Your task to perform on an android device: turn off wifi Image 0: 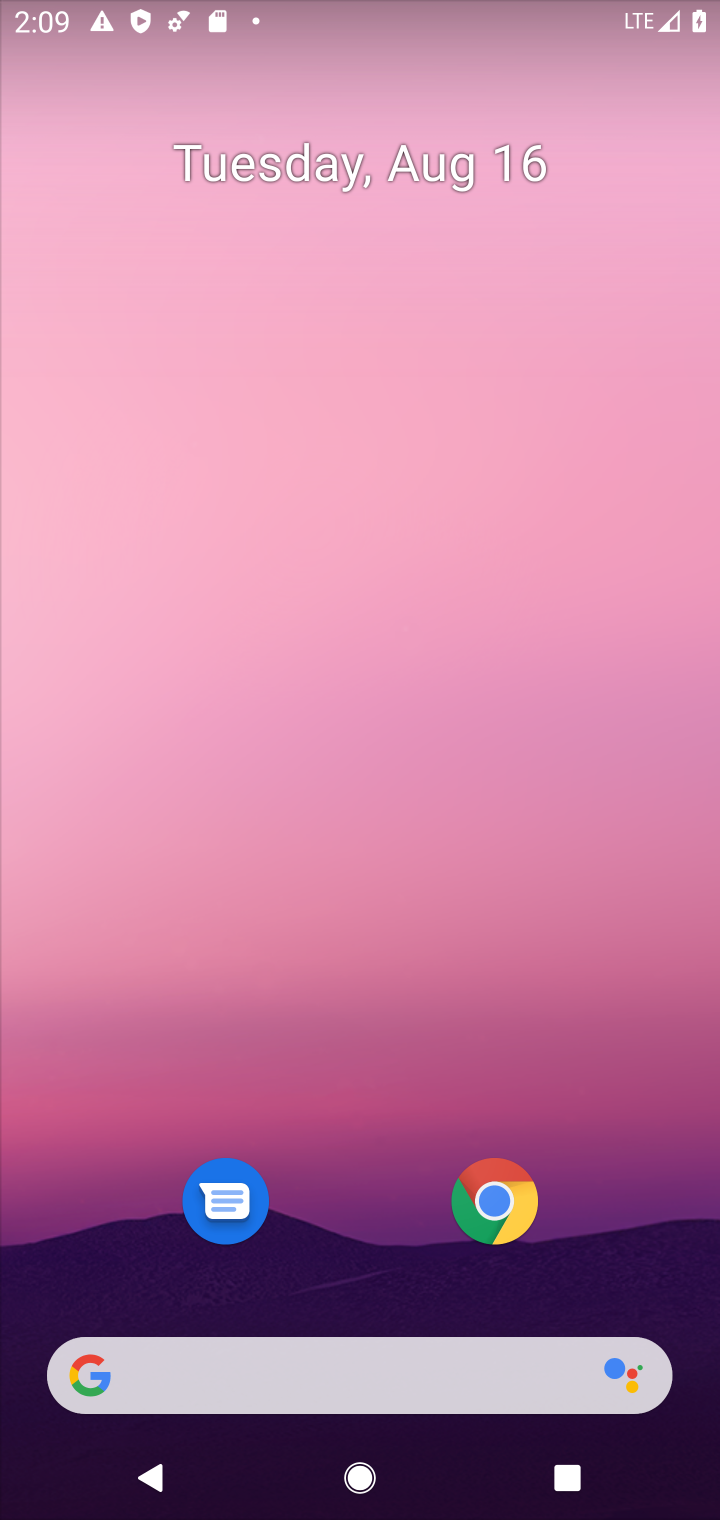
Step 0: press home button
Your task to perform on an android device: turn off wifi Image 1: 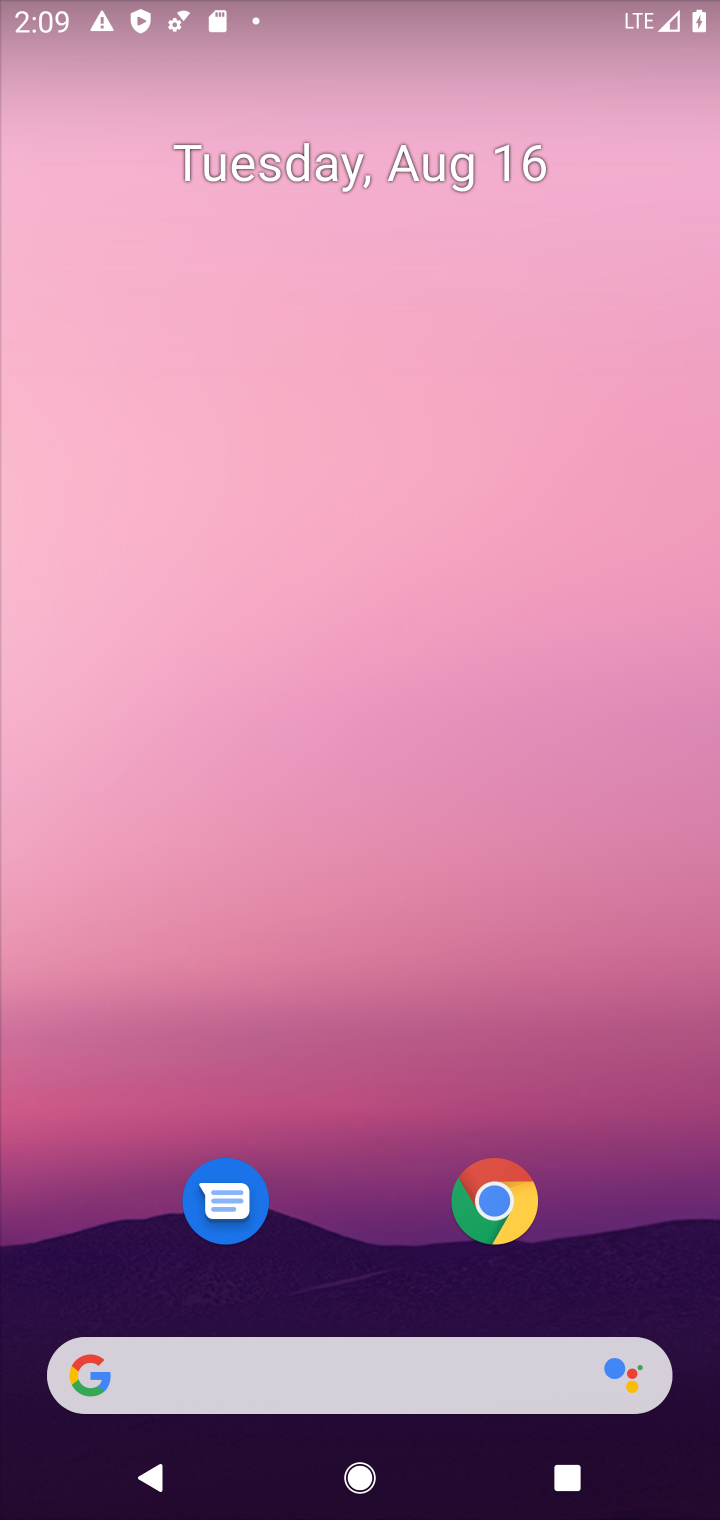
Step 1: drag from (291, 797) to (365, 365)
Your task to perform on an android device: turn off wifi Image 2: 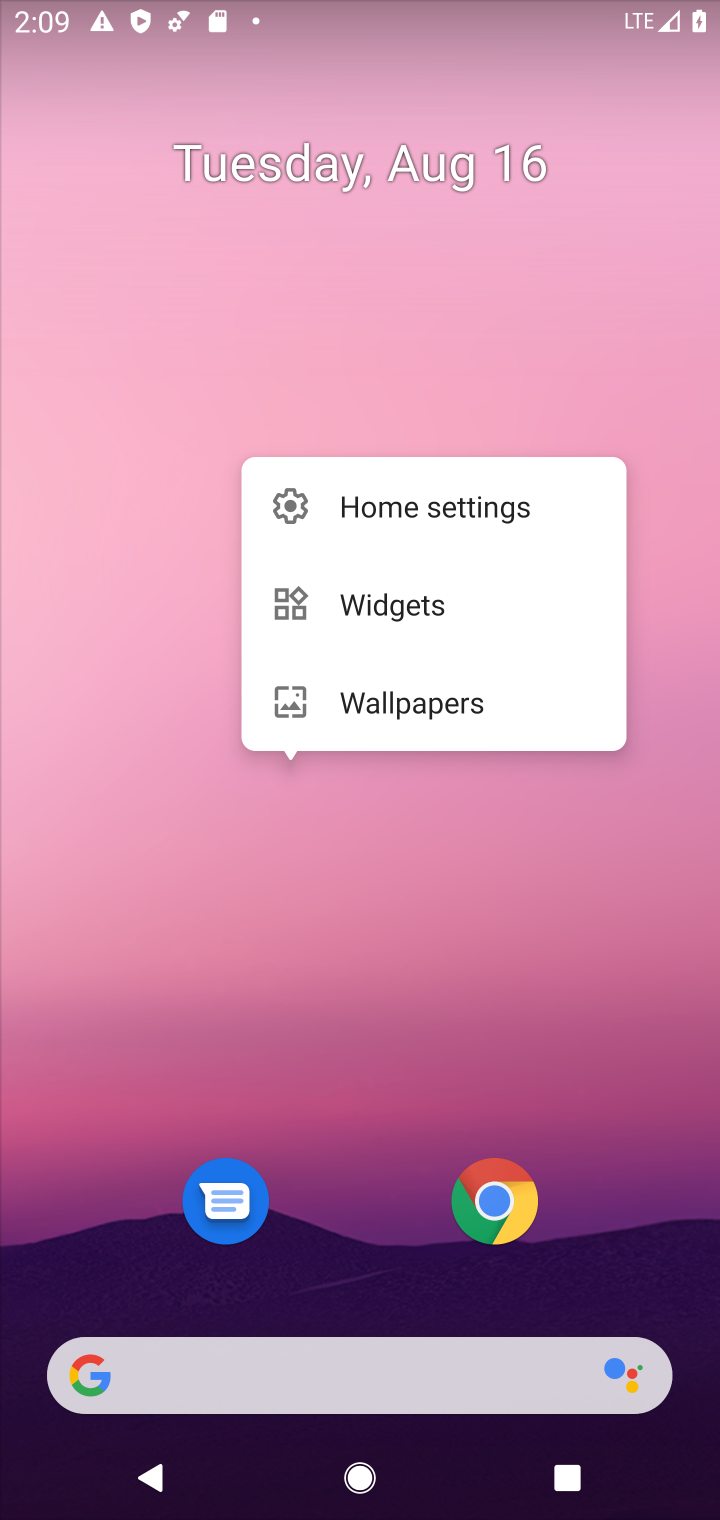
Step 2: drag from (328, 874) to (307, 158)
Your task to perform on an android device: turn off wifi Image 3: 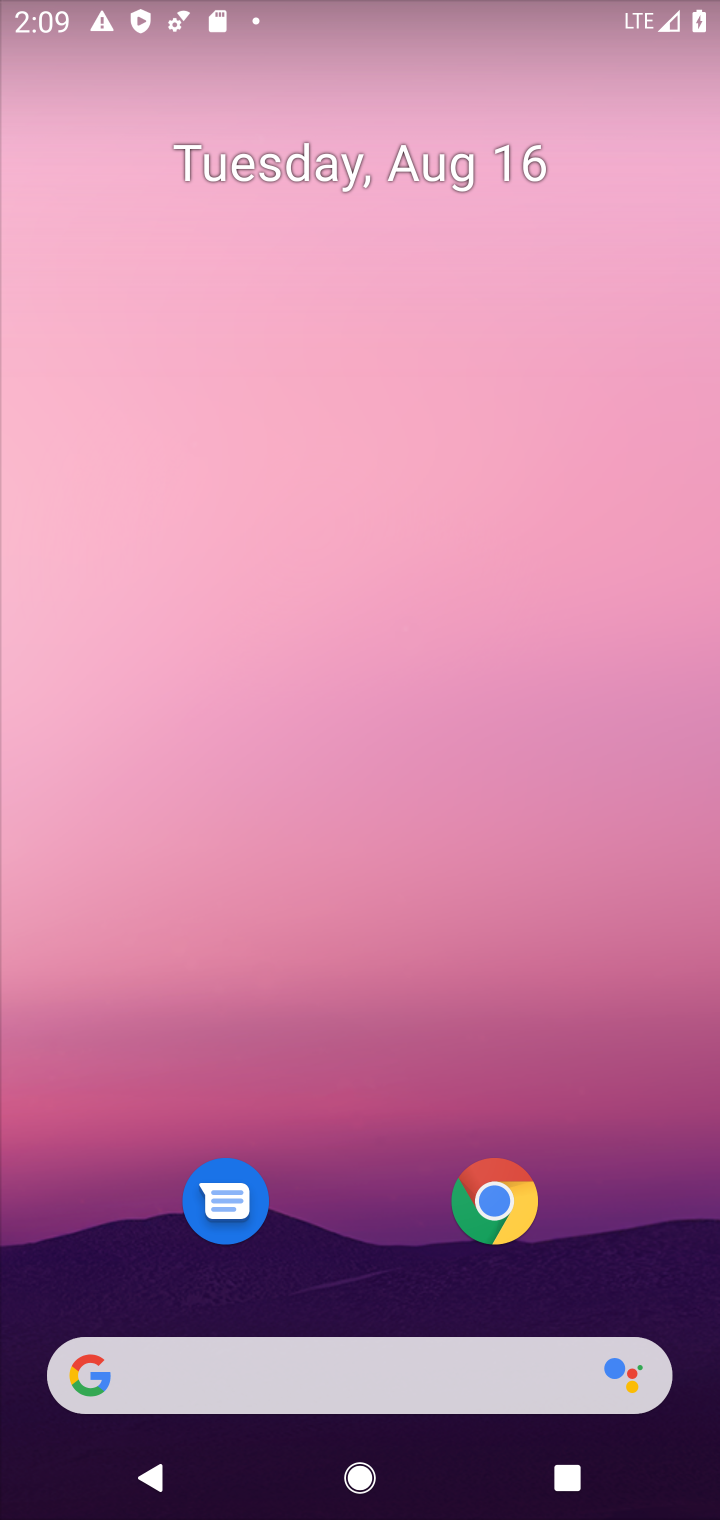
Step 3: drag from (398, 1104) to (456, 282)
Your task to perform on an android device: turn off wifi Image 4: 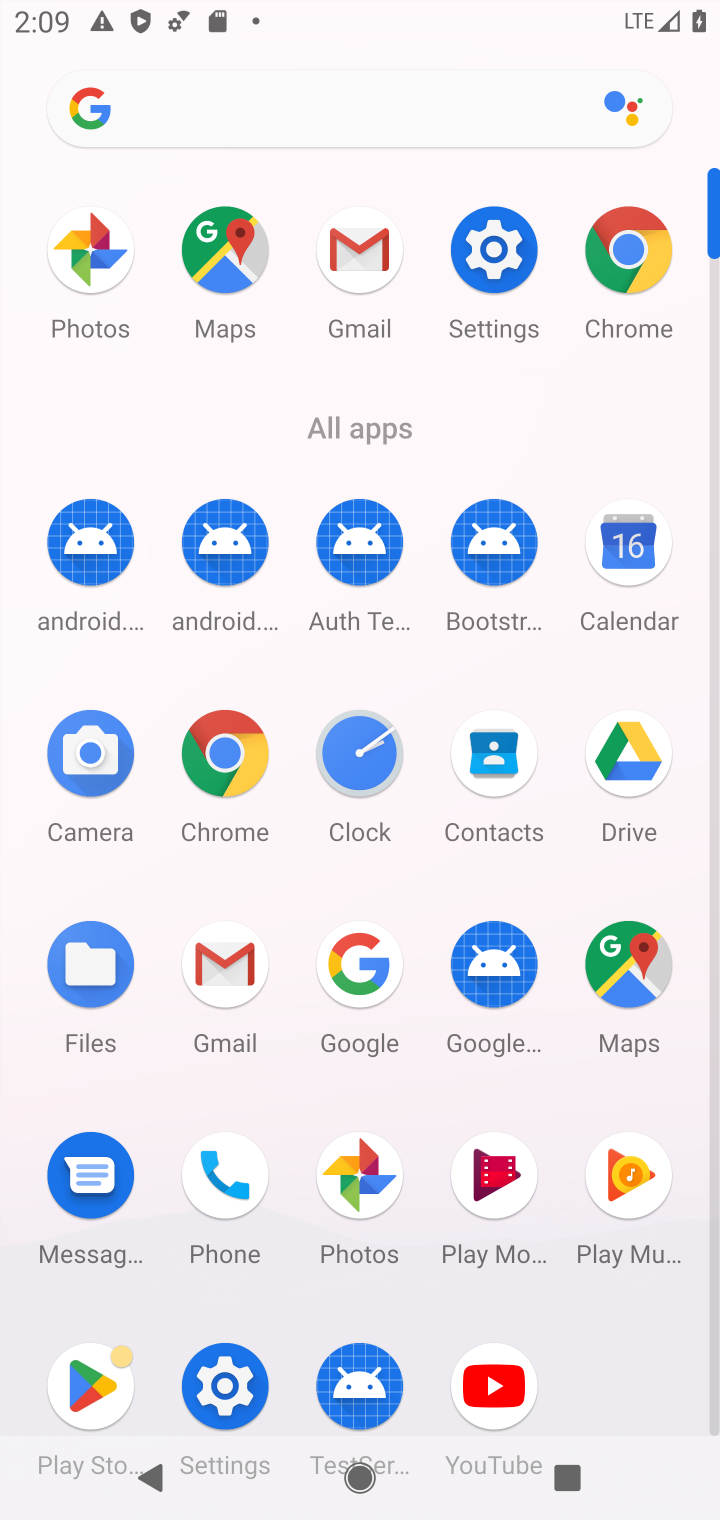
Step 4: click (483, 264)
Your task to perform on an android device: turn off wifi Image 5: 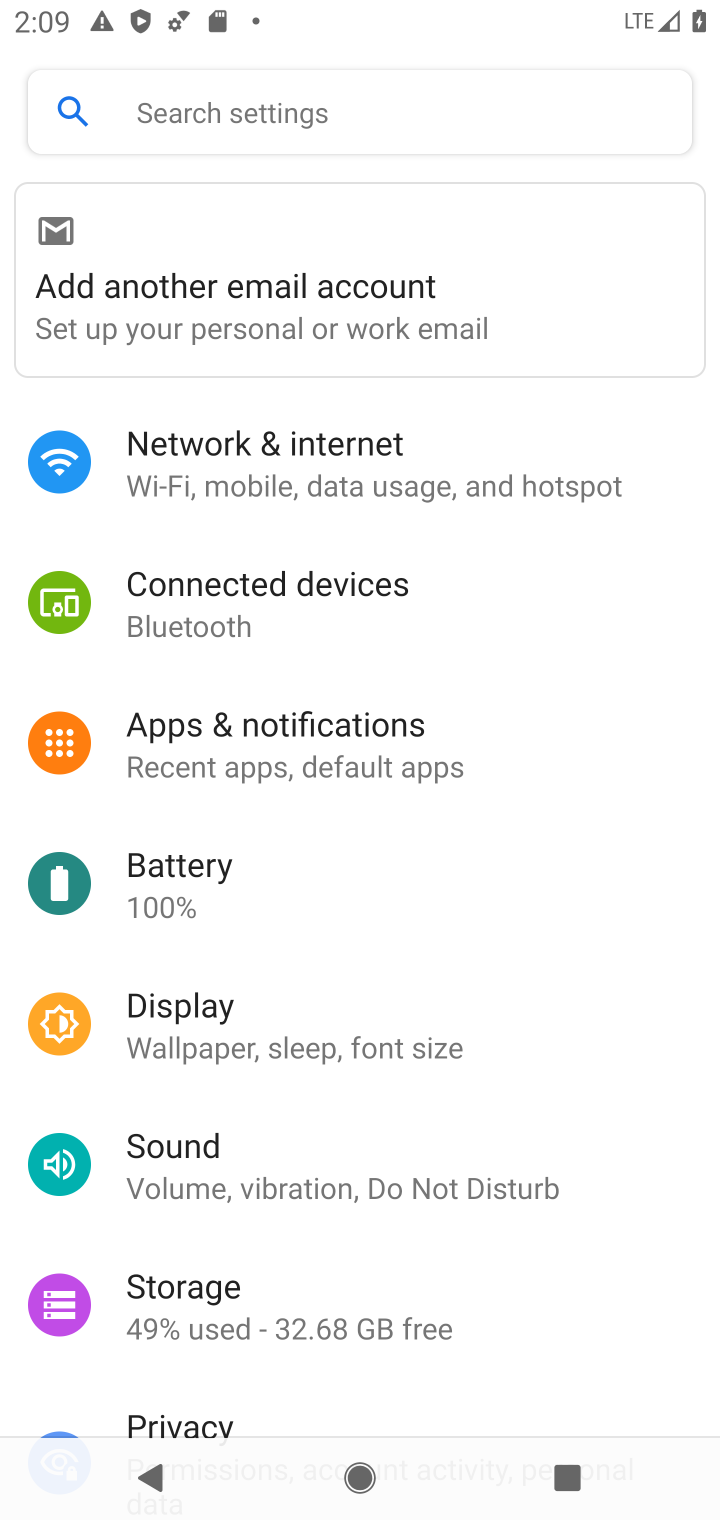
Step 5: drag from (327, 263) to (354, 107)
Your task to perform on an android device: turn off wifi Image 6: 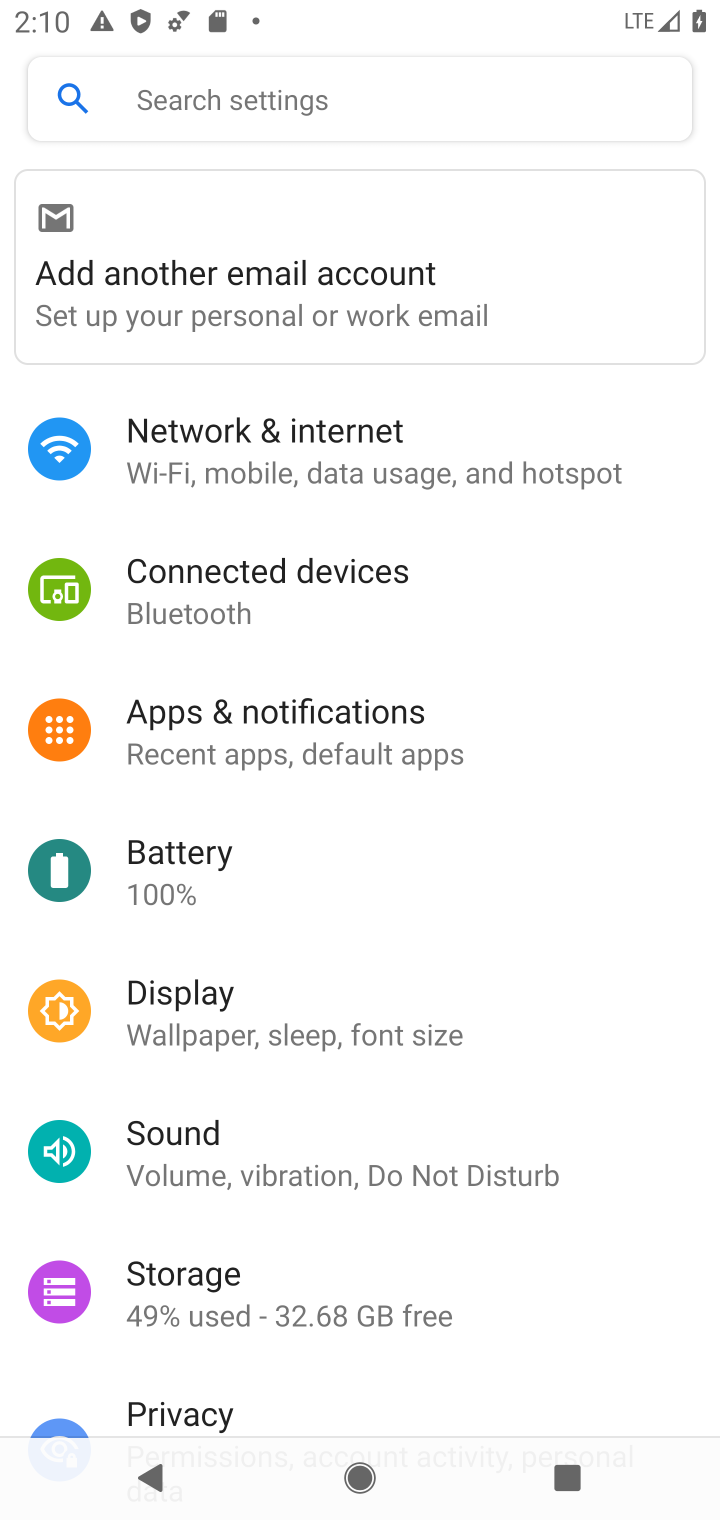
Step 6: click (300, 453)
Your task to perform on an android device: turn off wifi Image 7: 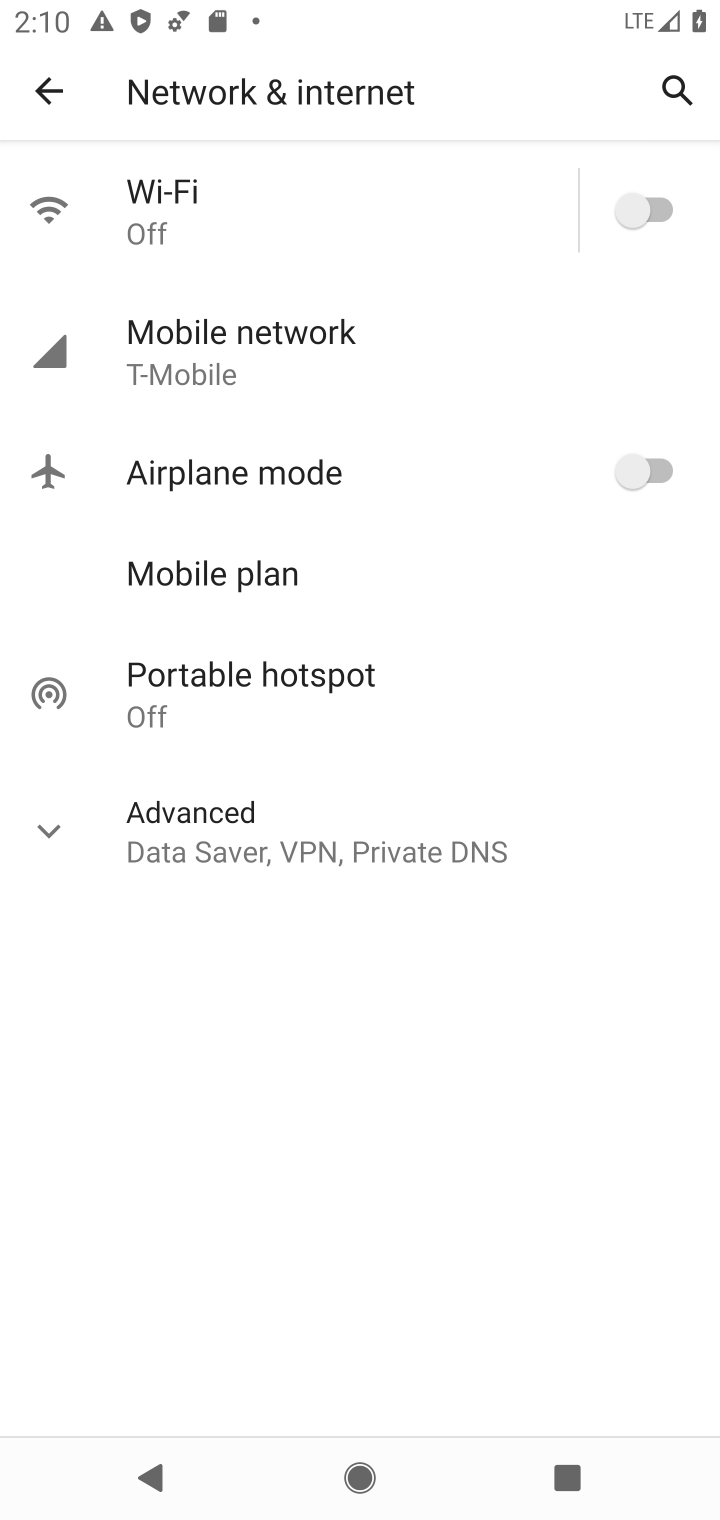
Step 7: task complete